Your task to perform on an android device: Go to wifi settings Image 0: 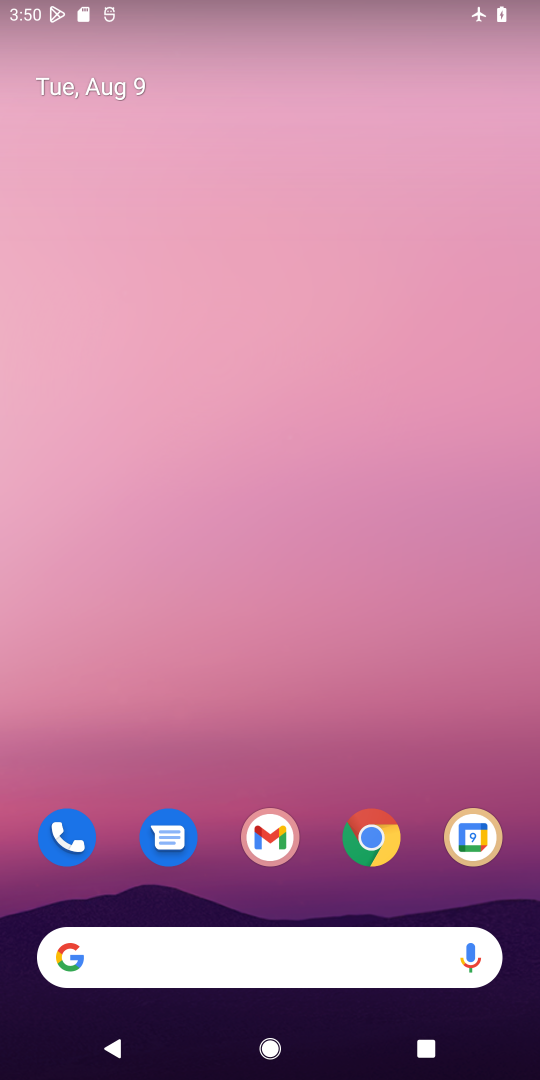
Step 0: drag from (393, 895) to (372, 441)
Your task to perform on an android device: Go to wifi settings Image 1: 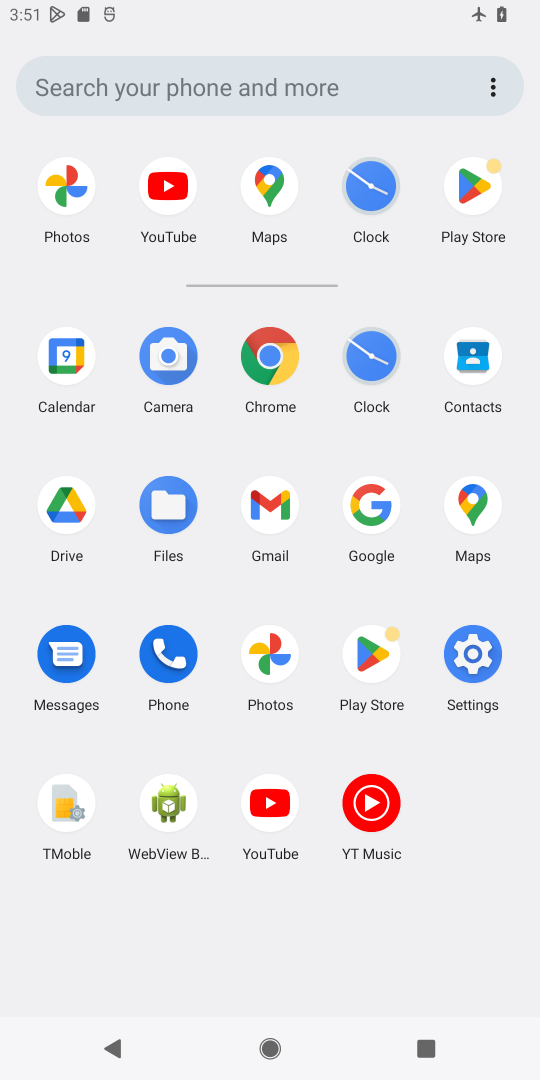
Step 1: click (493, 651)
Your task to perform on an android device: Go to wifi settings Image 2: 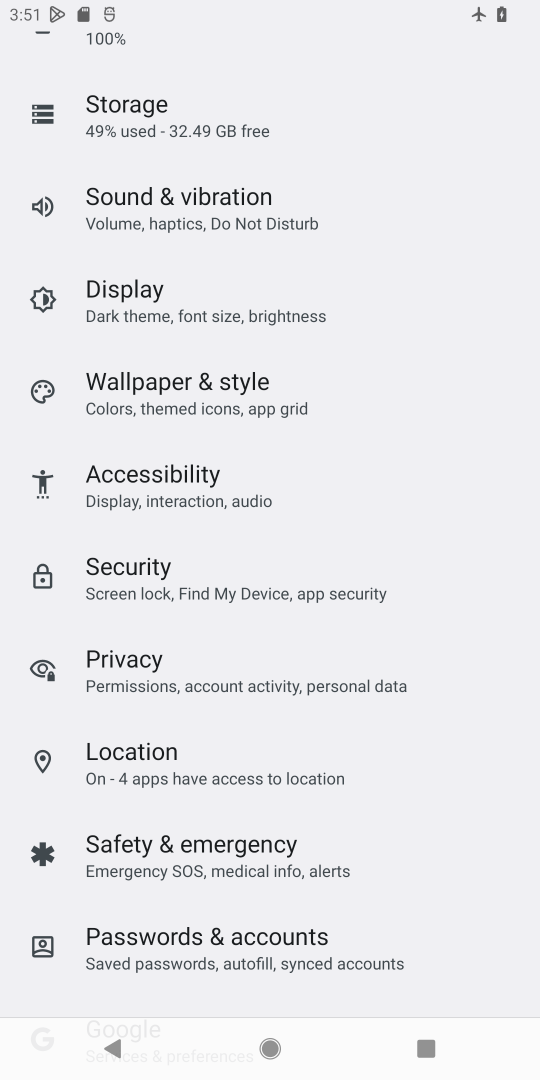
Step 2: drag from (206, 167) to (257, 942)
Your task to perform on an android device: Go to wifi settings Image 3: 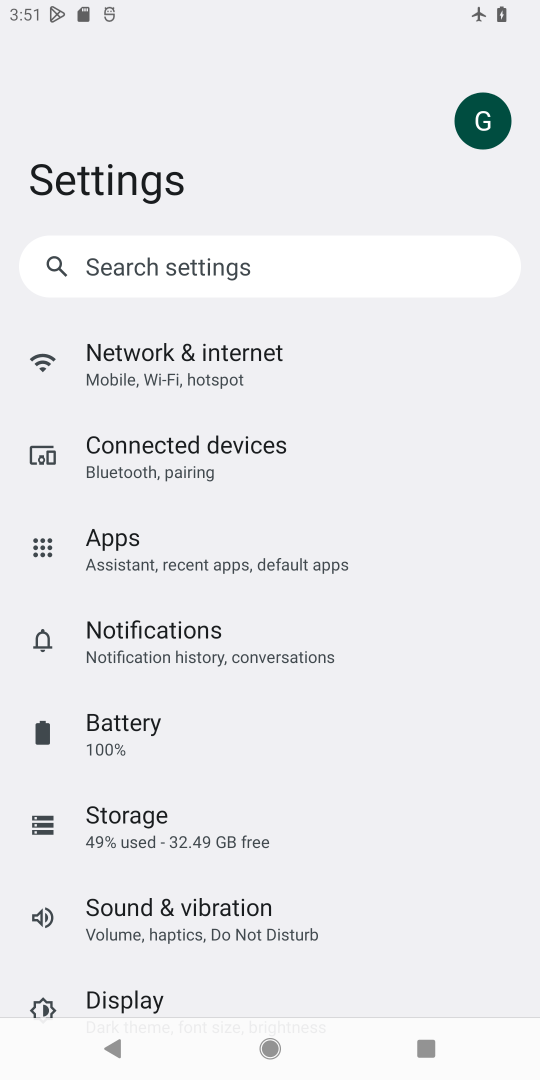
Step 3: click (190, 367)
Your task to perform on an android device: Go to wifi settings Image 4: 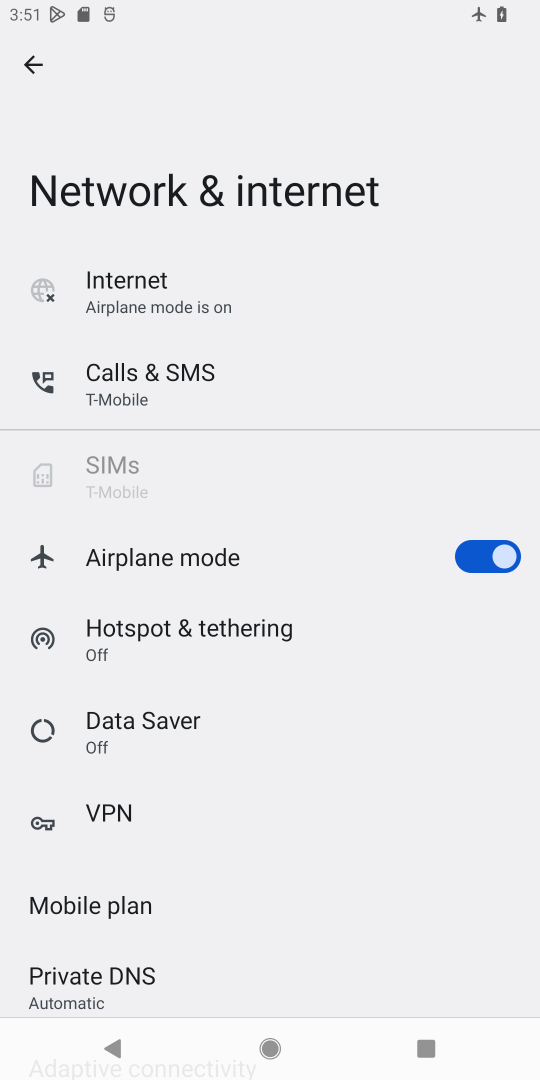
Step 4: click (151, 277)
Your task to perform on an android device: Go to wifi settings Image 5: 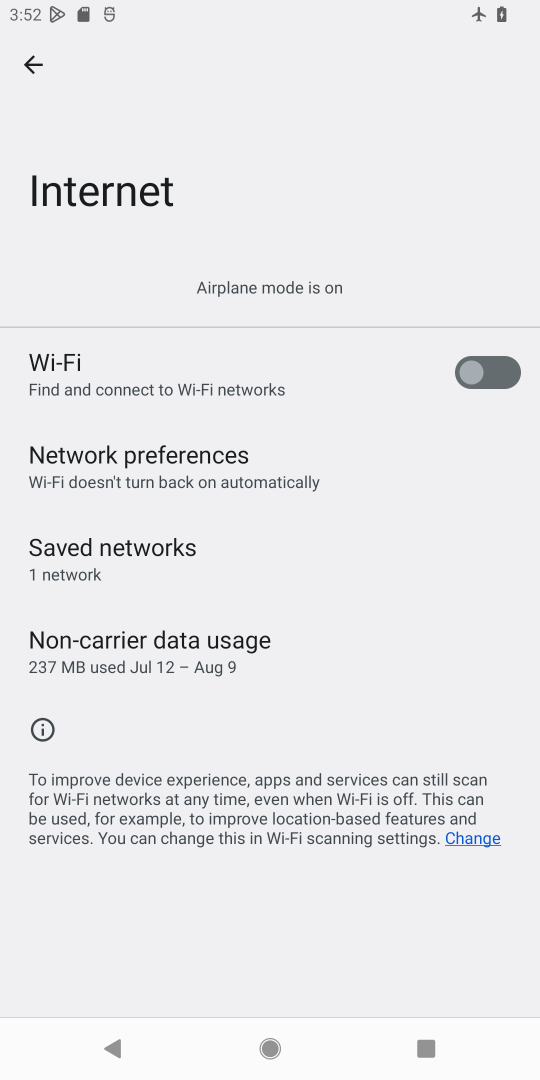
Step 5: task complete